Your task to perform on an android device: toggle airplane mode Image 0: 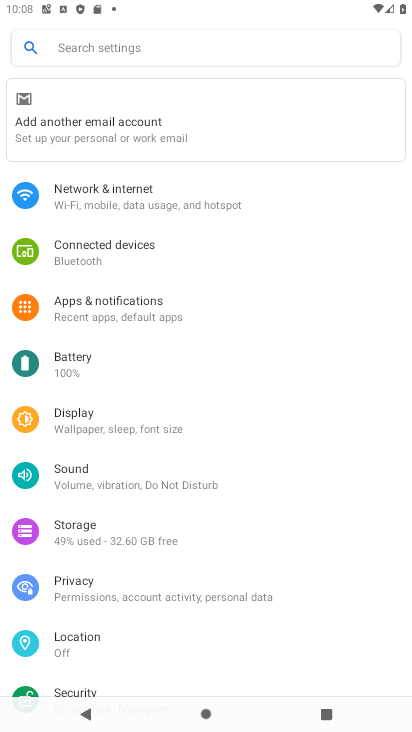
Step 0: task impossible